Your task to perform on an android device: open app "Viber Messenger" (install if not already installed) and enter user name: "blameless@icloud.com" and password: "Yoknapatawpha" Image 0: 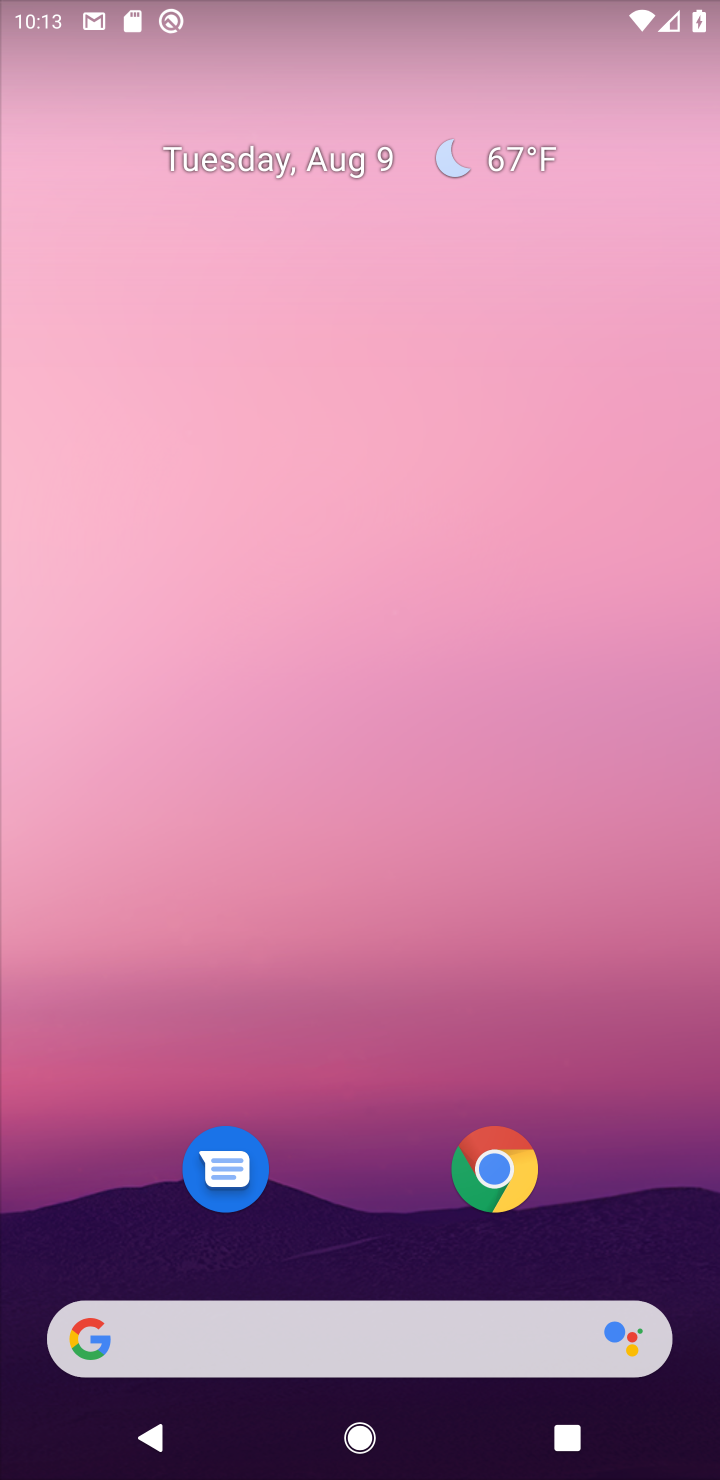
Step 0: press home button
Your task to perform on an android device: open app "Viber Messenger" (install if not already installed) and enter user name: "blameless@icloud.com" and password: "Yoknapatawpha" Image 1: 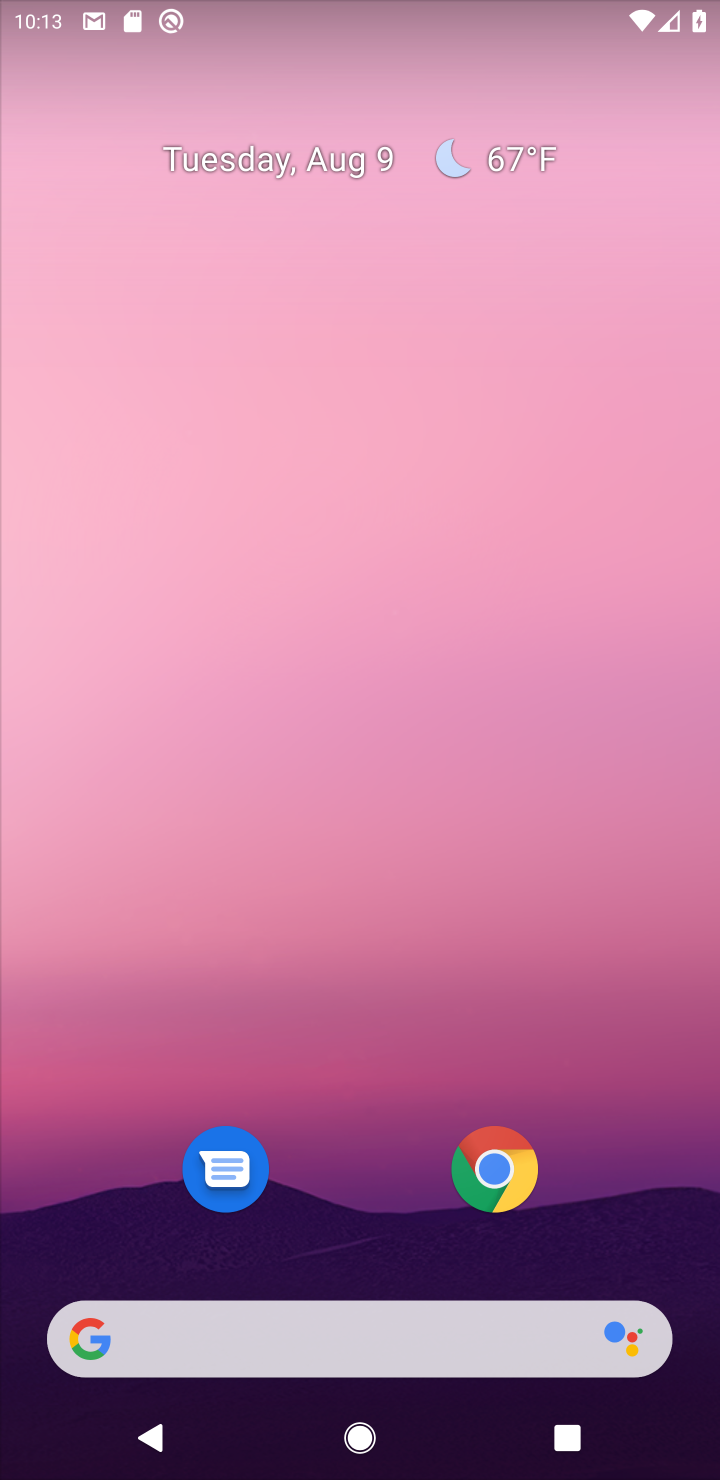
Step 1: drag from (630, 1221) to (659, 205)
Your task to perform on an android device: open app "Viber Messenger" (install if not already installed) and enter user name: "blameless@icloud.com" and password: "Yoknapatawpha" Image 2: 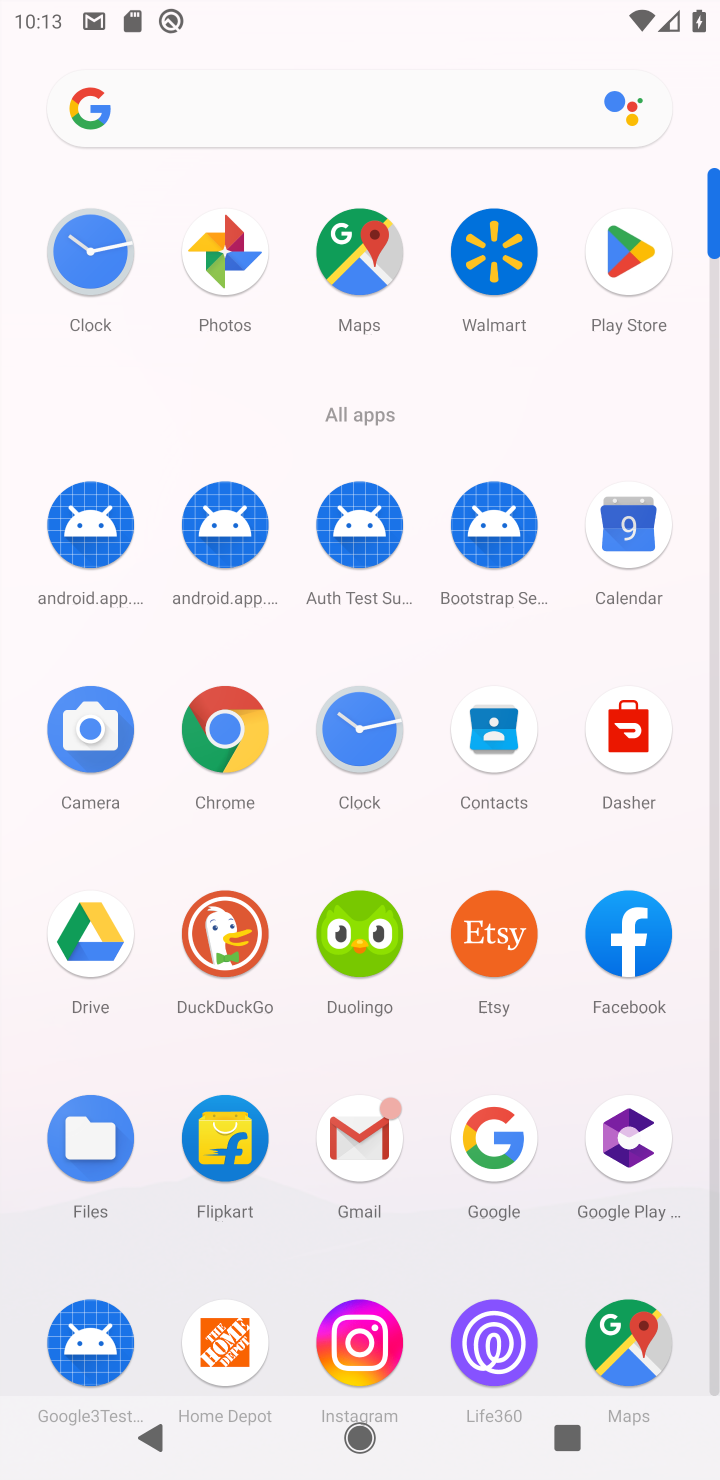
Step 2: click (623, 254)
Your task to perform on an android device: open app "Viber Messenger" (install if not already installed) and enter user name: "blameless@icloud.com" and password: "Yoknapatawpha" Image 3: 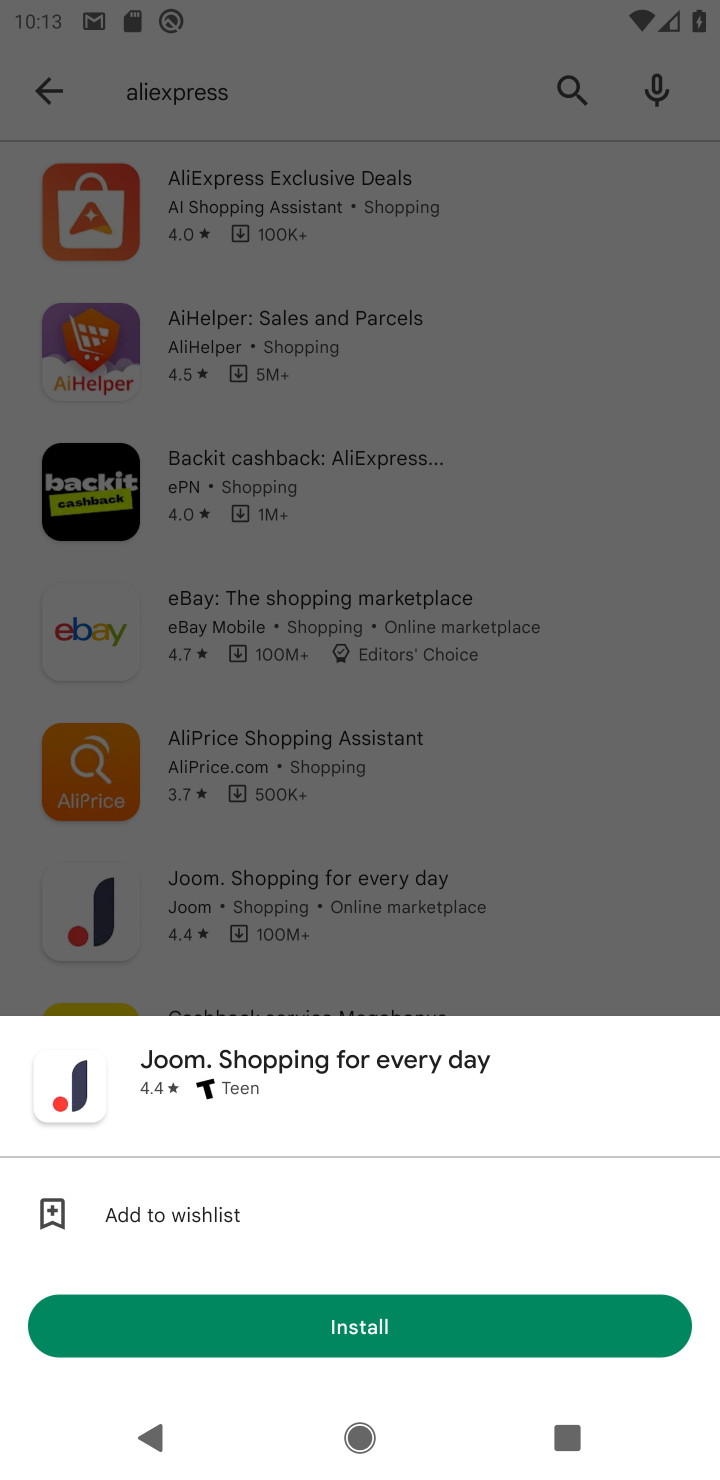
Step 3: press back button
Your task to perform on an android device: open app "Viber Messenger" (install if not already installed) and enter user name: "blameless@icloud.com" and password: "Yoknapatawpha" Image 4: 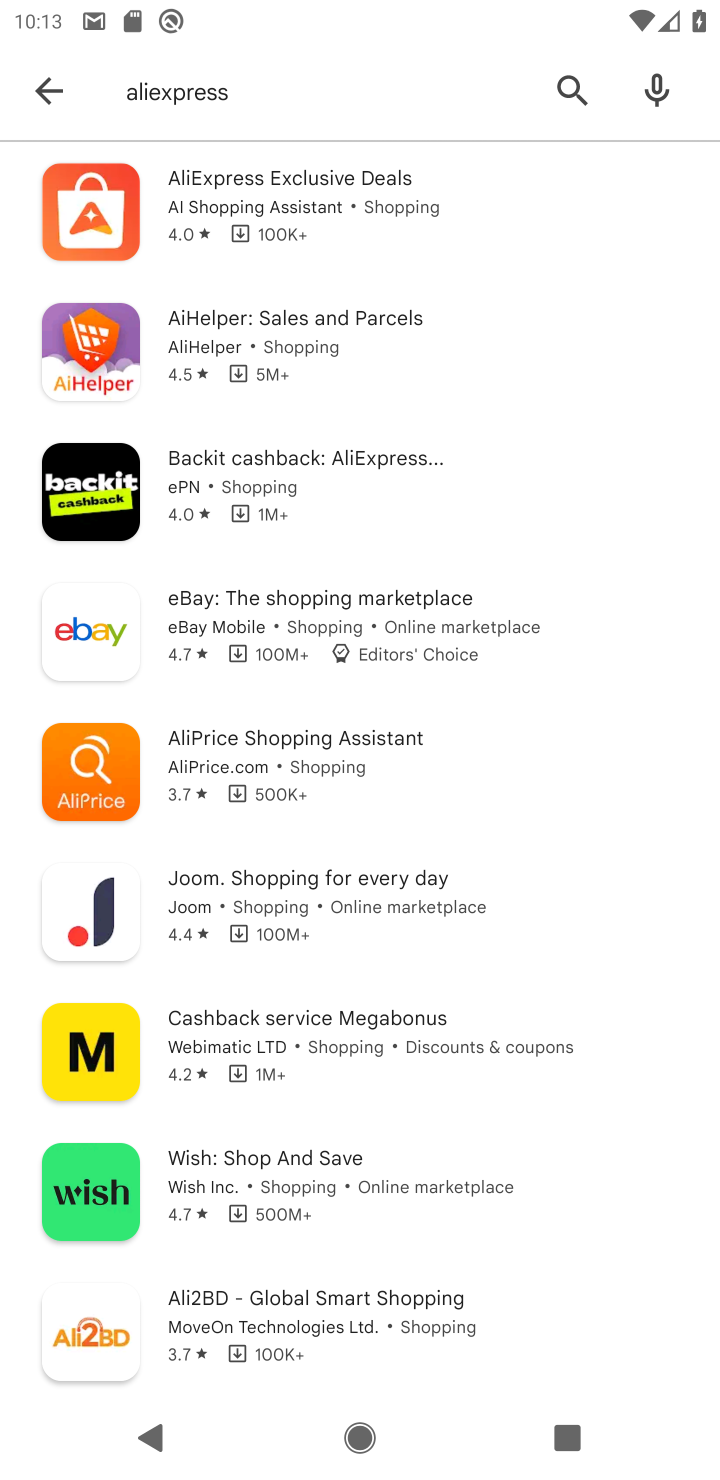
Step 4: click (569, 88)
Your task to perform on an android device: open app "Viber Messenger" (install if not already installed) and enter user name: "blameless@icloud.com" and password: "Yoknapatawpha" Image 5: 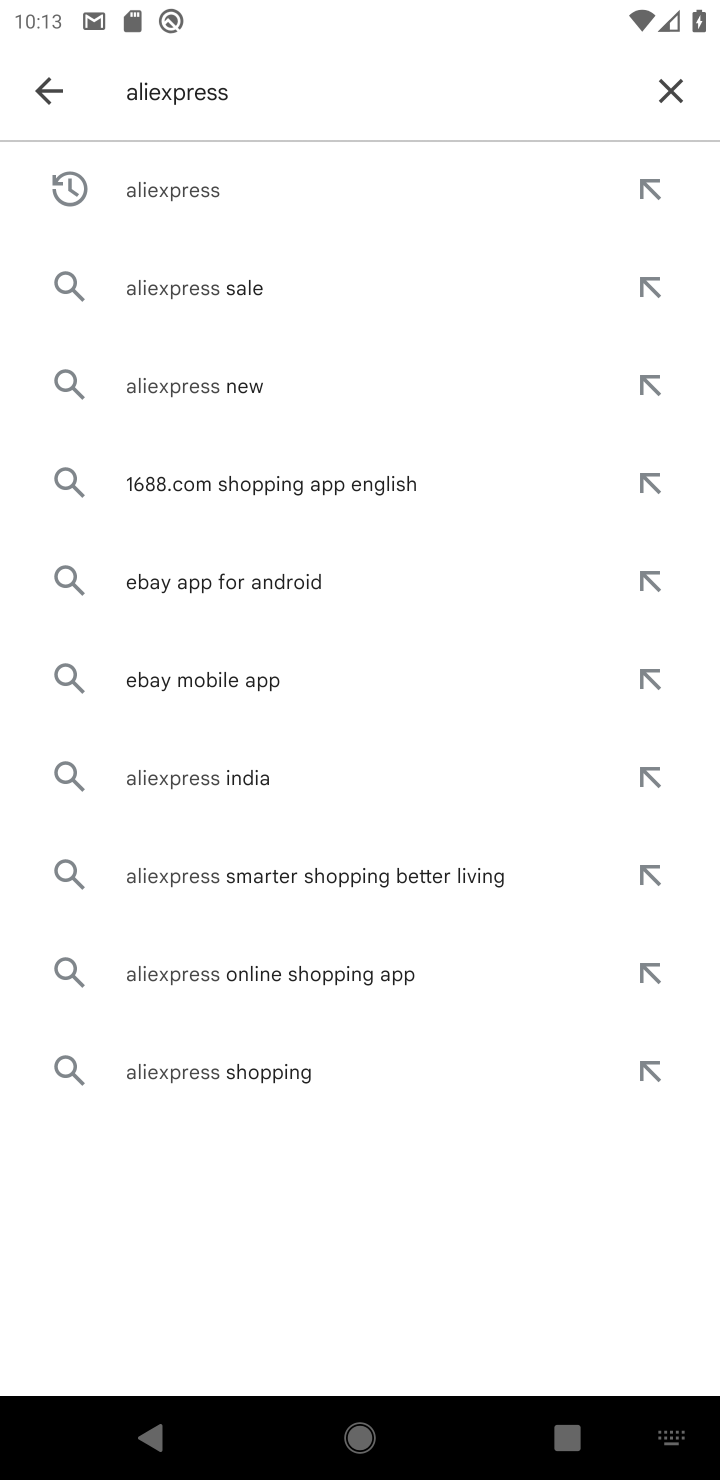
Step 5: click (675, 89)
Your task to perform on an android device: open app "Viber Messenger" (install if not already installed) and enter user name: "blameless@icloud.com" and password: "Yoknapatawpha" Image 6: 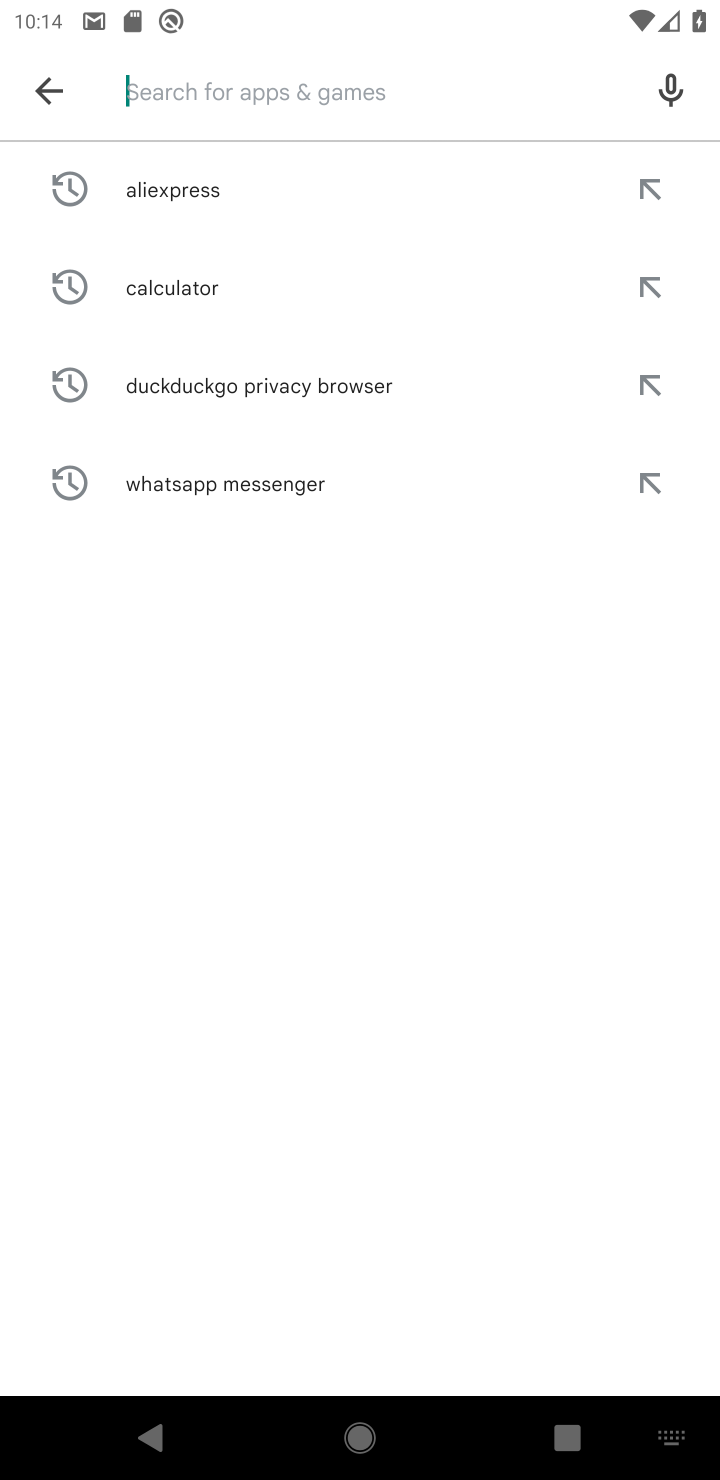
Step 6: type "viber messenger "
Your task to perform on an android device: open app "Viber Messenger" (install if not already installed) and enter user name: "blameless@icloud.com" and password: "Yoknapatawpha" Image 7: 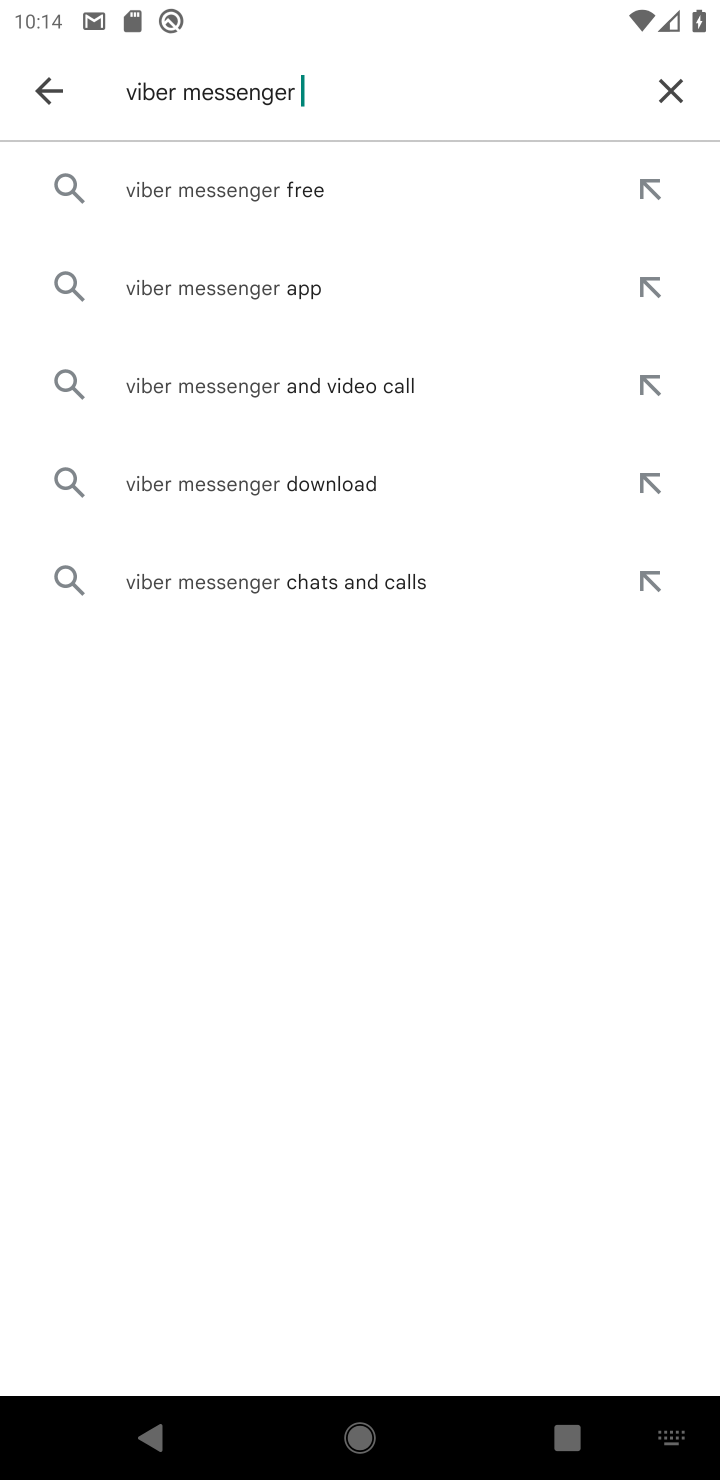
Step 7: click (319, 296)
Your task to perform on an android device: open app "Viber Messenger" (install if not already installed) and enter user name: "blameless@icloud.com" and password: "Yoknapatawpha" Image 8: 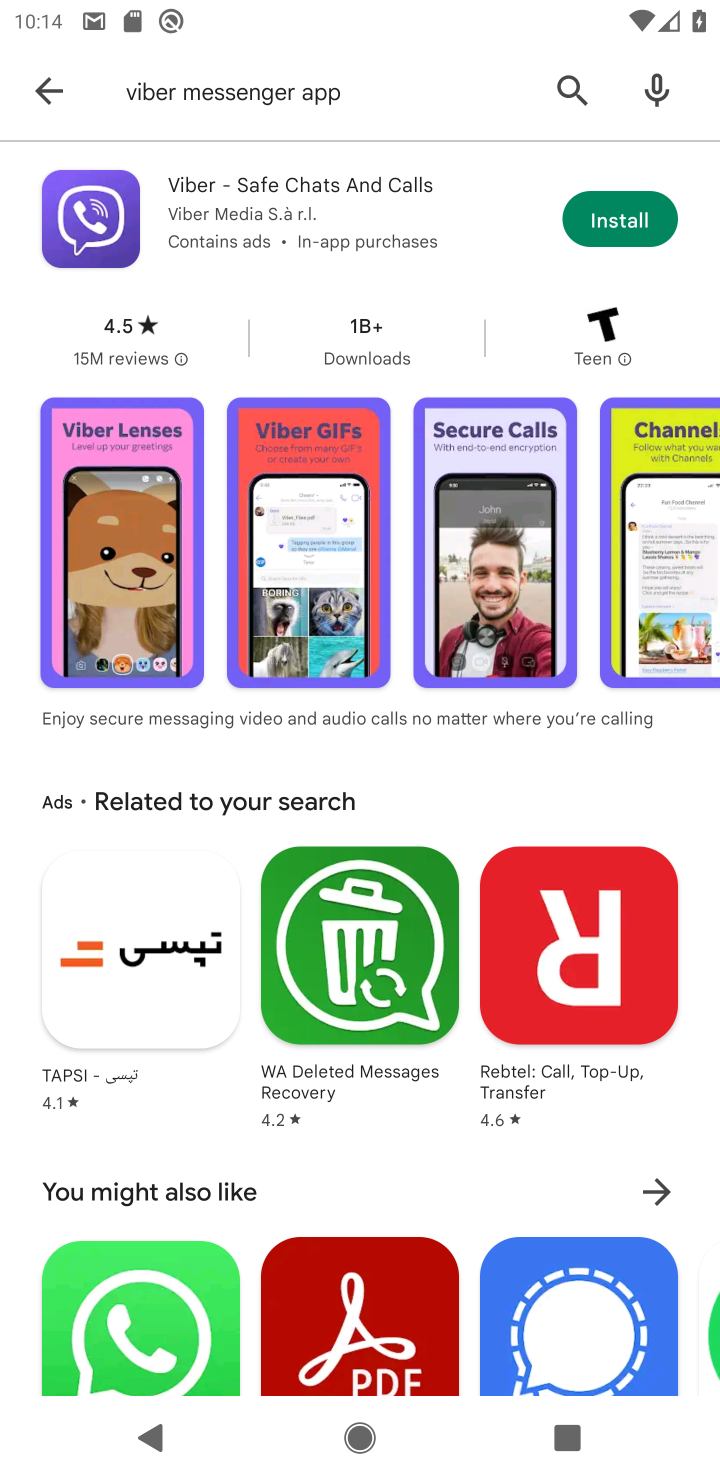
Step 8: click (619, 217)
Your task to perform on an android device: open app "Viber Messenger" (install if not already installed) and enter user name: "blameless@icloud.com" and password: "Yoknapatawpha" Image 9: 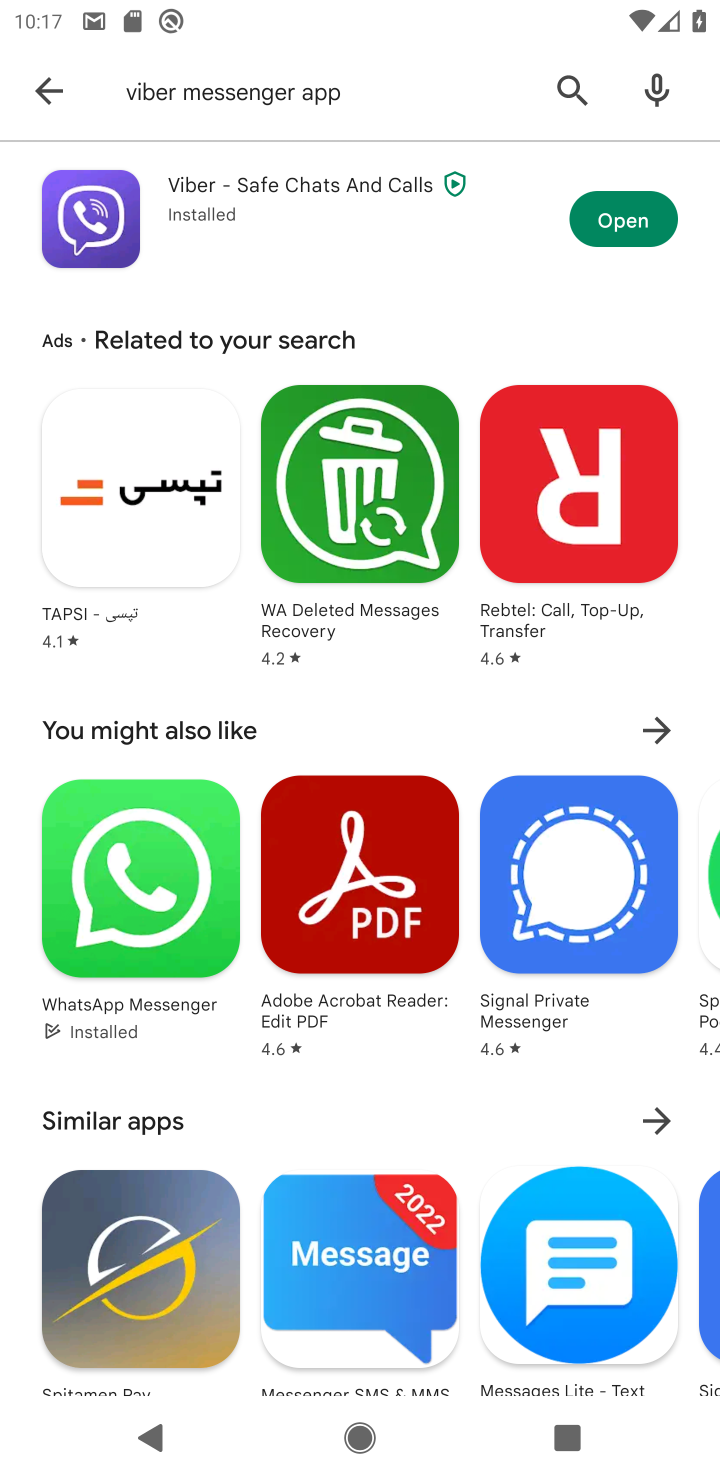
Step 9: click (607, 230)
Your task to perform on an android device: open app "Viber Messenger" (install if not already installed) and enter user name: "blameless@icloud.com" and password: "Yoknapatawpha" Image 10: 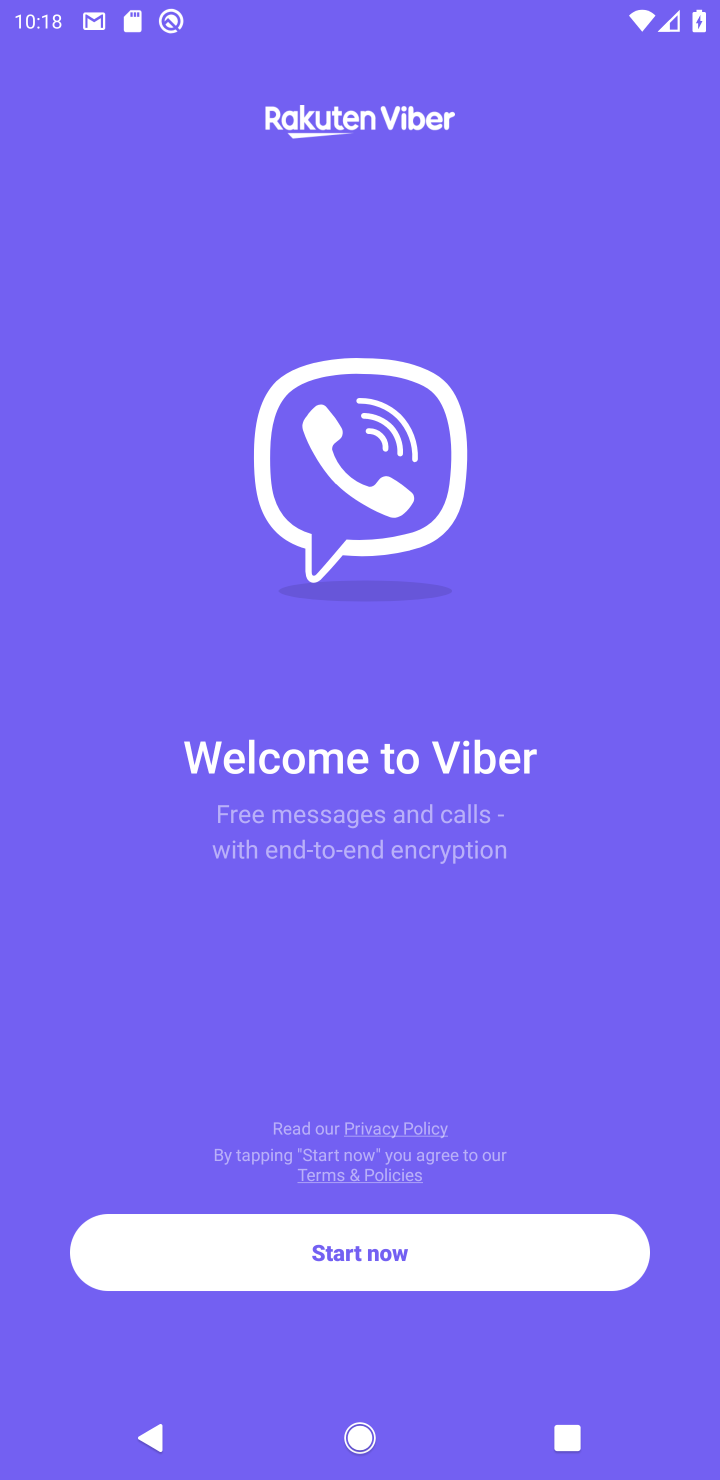
Step 10: click (346, 1255)
Your task to perform on an android device: open app "Viber Messenger" (install if not already installed) and enter user name: "blameless@icloud.com" and password: "Yoknapatawpha" Image 11: 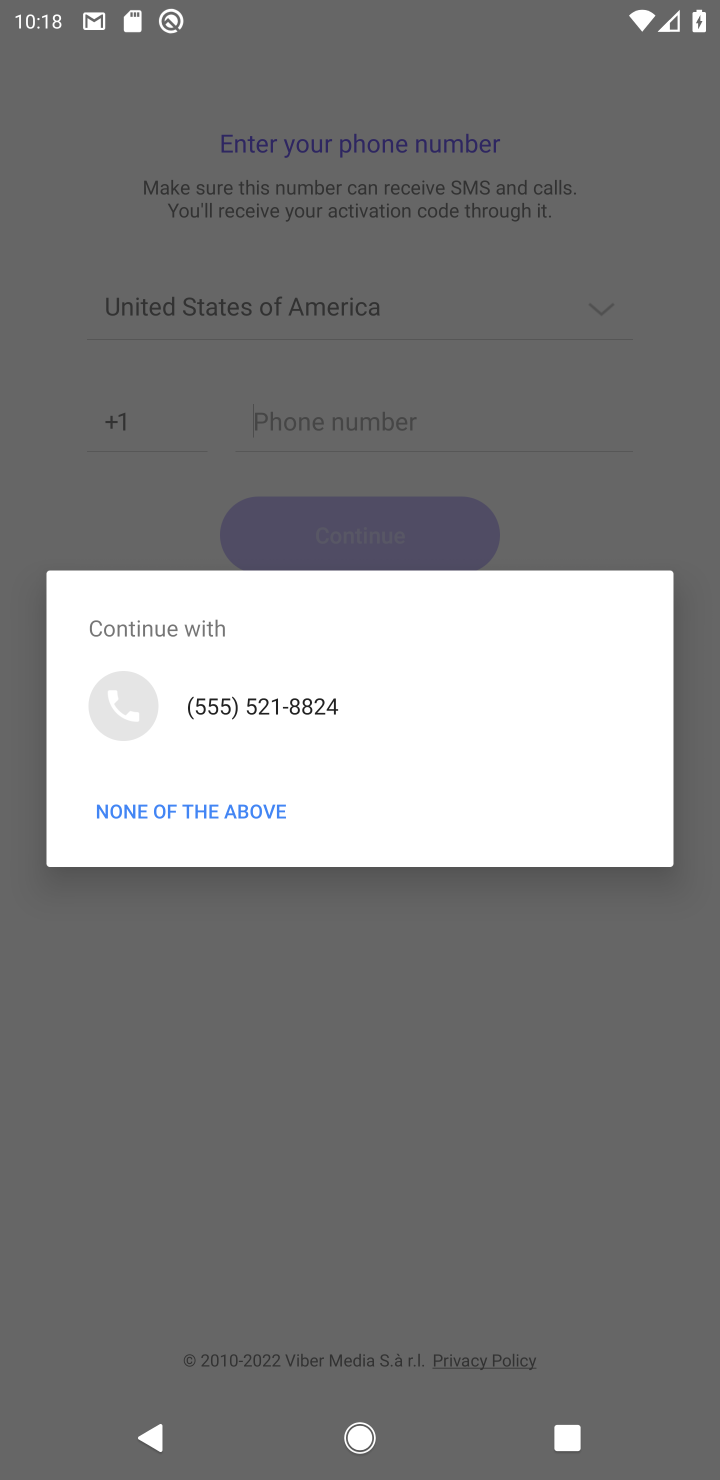
Step 11: click (274, 807)
Your task to perform on an android device: open app "Viber Messenger" (install if not already installed) and enter user name: "blameless@icloud.com" and password: "Yoknapatawpha" Image 12: 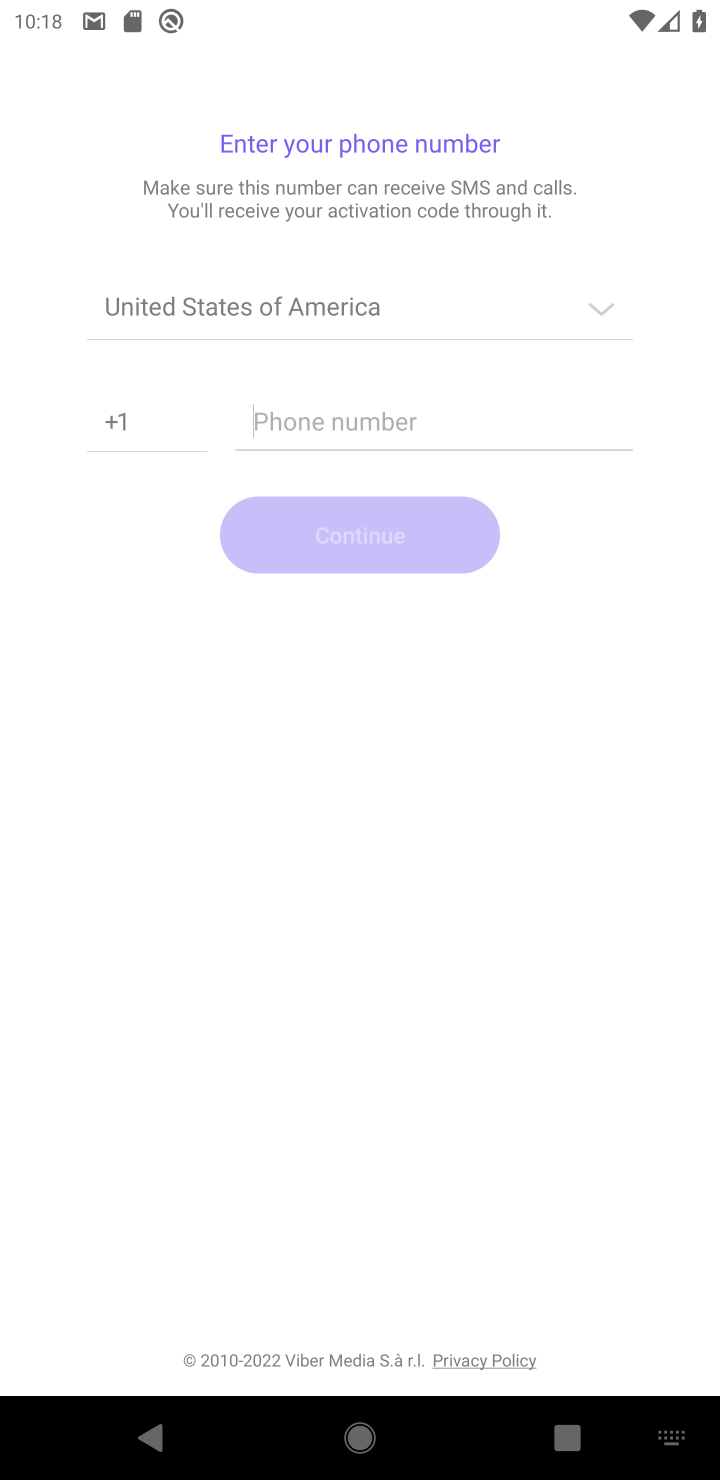
Step 12: task complete